Your task to perform on an android device: change notification settings in the gmail app Image 0: 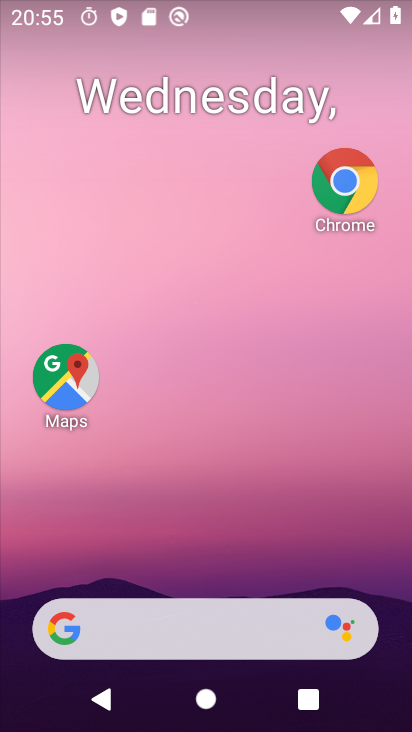
Step 0: drag from (199, 663) to (184, 256)
Your task to perform on an android device: change notification settings in the gmail app Image 1: 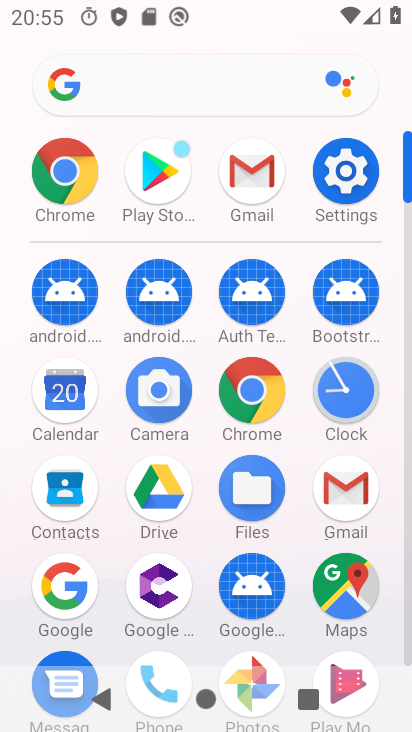
Step 1: click (256, 158)
Your task to perform on an android device: change notification settings in the gmail app Image 2: 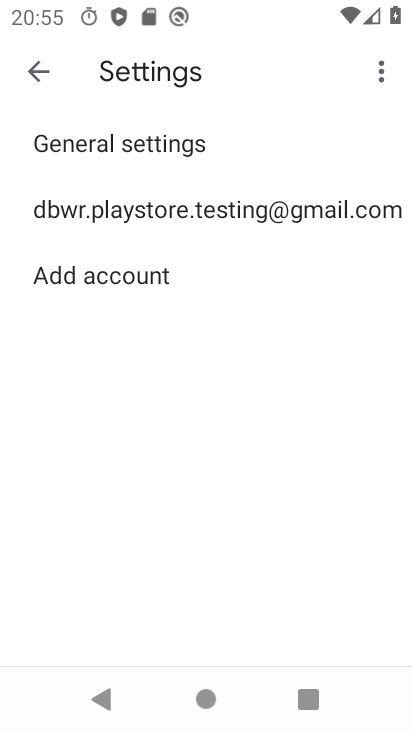
Step 2: click (172, 211)
Your task to perform on an android device: change notification settings in the gmail app Image 3: 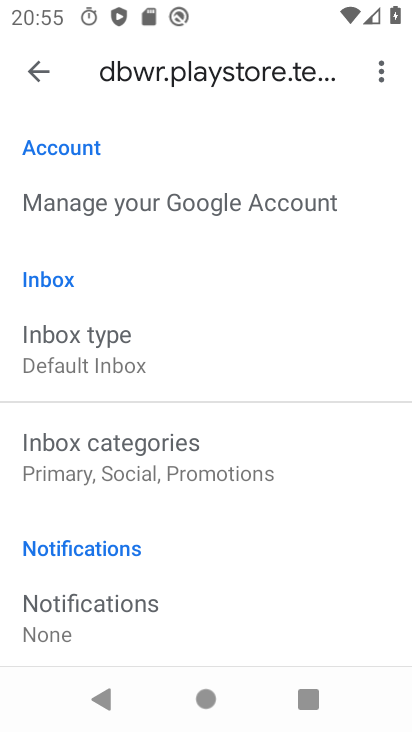
Step 3: click (60, 587)
Your task to perform on an android device: change notification settings in the gmail app Image 4: 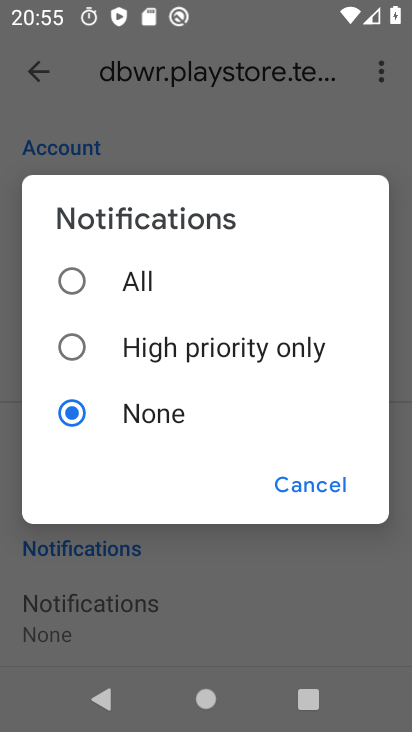
Step 4: click (150, 283)
Your task to perform on an android device: change notification settings in the gmail app Image 5: 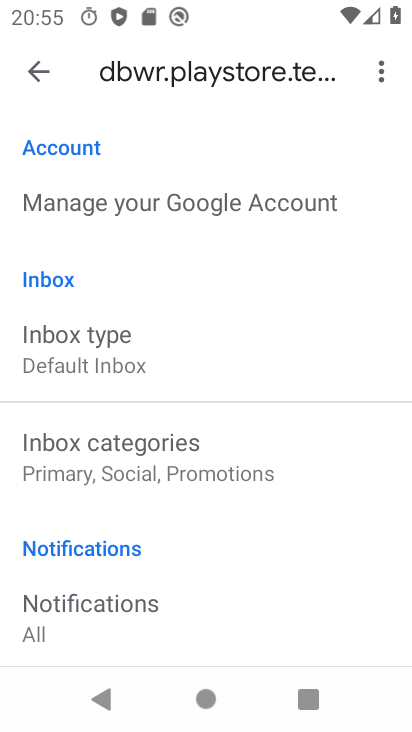
Step 5: task complete